Your task to perform on an android device: check storage Image 0: 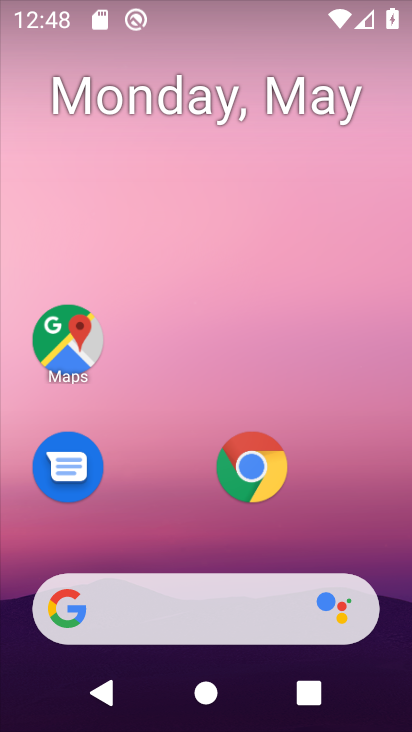
Step 0: drag from (189, 530) to (227, 106)
Your task to perform on an android device: check storage Image 1: 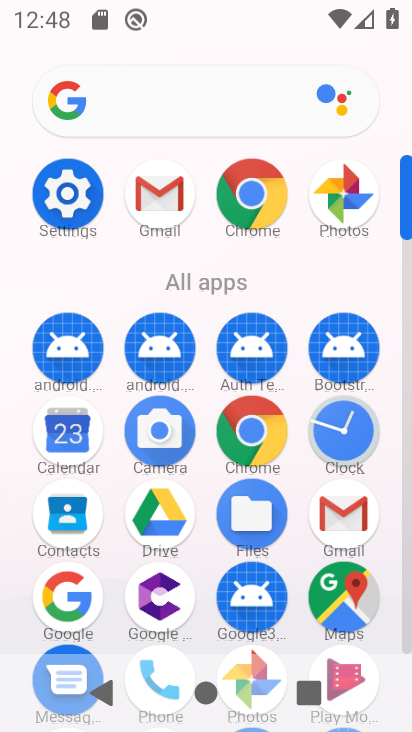
Step 1: click (59, 185)
Your task to perform on an android device: check storage Image 2: 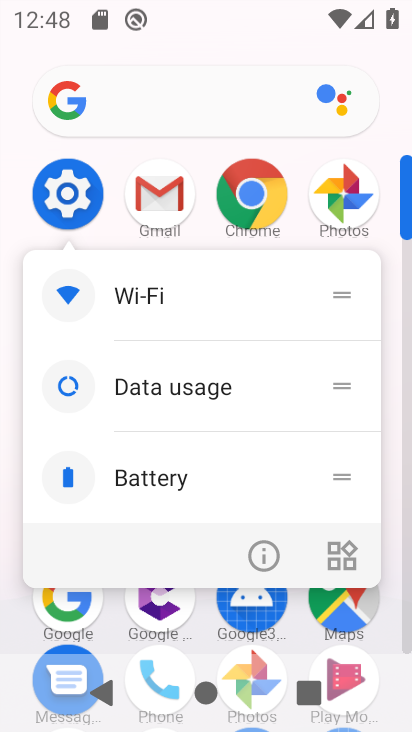
Step 2: click (259, 563)
Your task to perform on an android device: check storage Image 3: 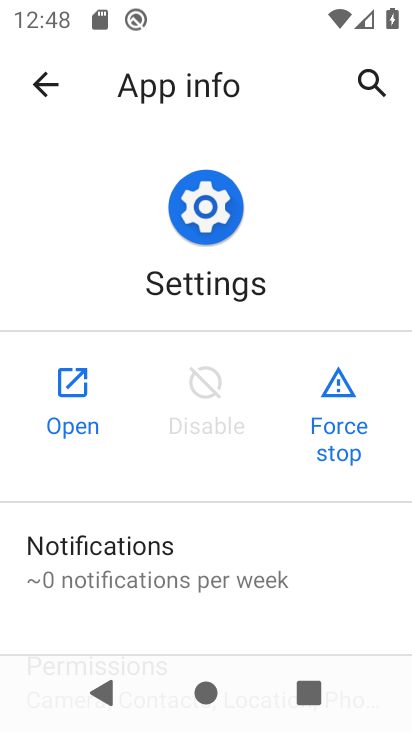
Step 3: click (58, 385)
Your task to perform on an android device: check storage Image 4: 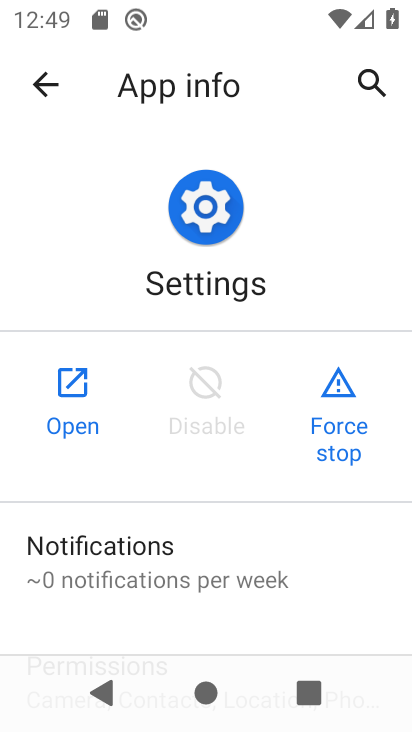
Step 4: click (58, 385)
Your task to perform on an android device: check storage Image 5: 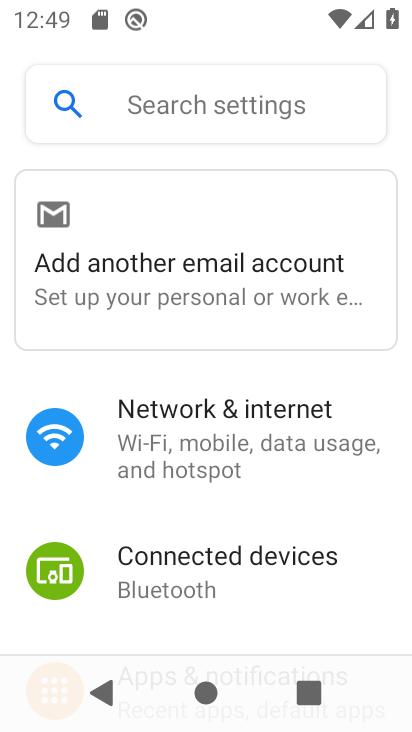
Step 5: drag from (184, 566) to (260, 129)
Your task to perform on an android device: check storage Image 6: 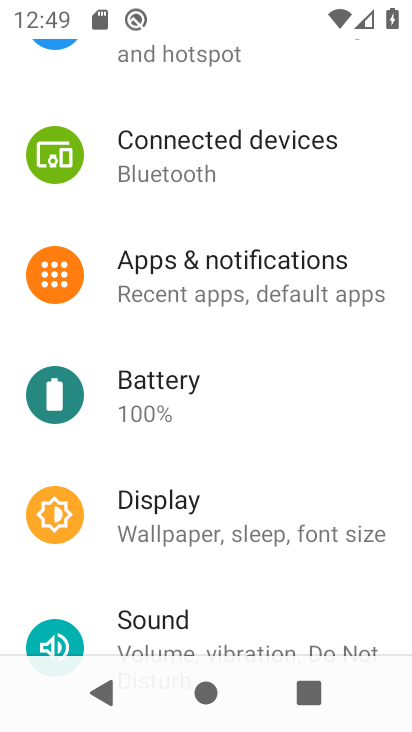
Step 6: drag from (203, 515) to (270, 150)
Your task to perform on an android device: check storage Image 7: 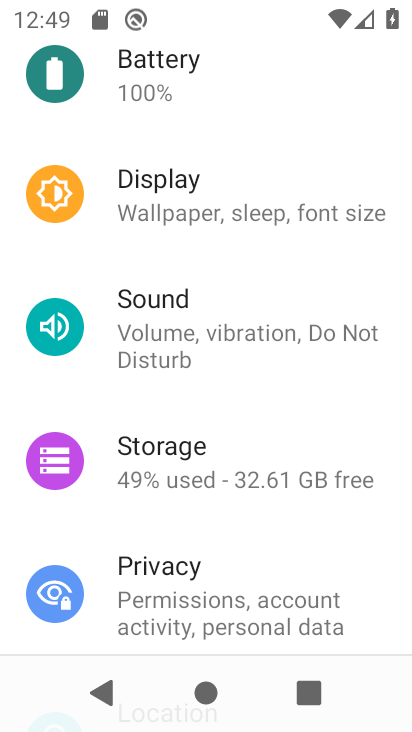
Step 7: drag from (197, 464) to (274, 189)
Your task to perform on an android device: check storage Image 8: 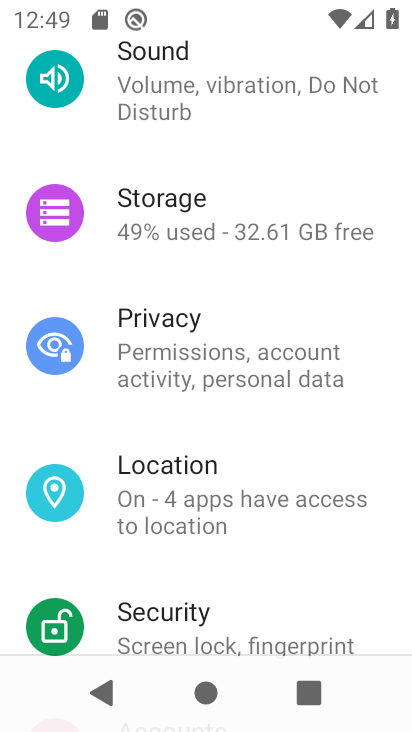
Step 8: click (192, 221)
Your task to perform on an android device: check storage Image 9: 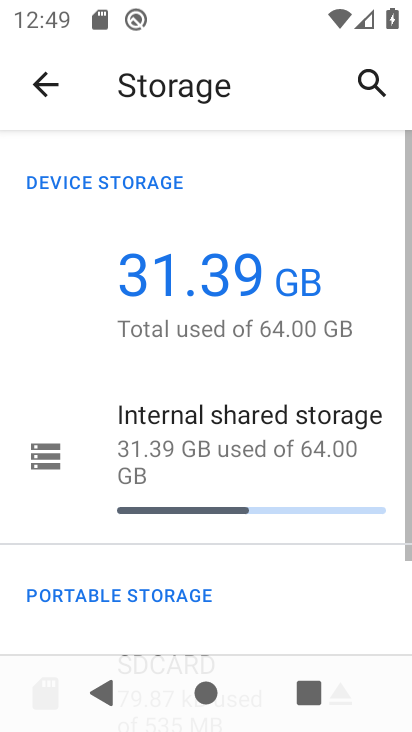
Step 9: task complete